Your task to perform on an android device: check out phone information Image 0: 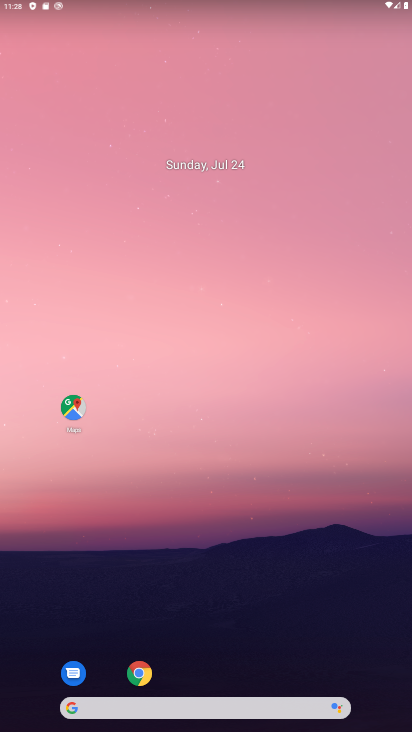
Step 0: drag from (219, 714) to (250, 191)
Your task to perform on an android device: check out phone information Image 1: 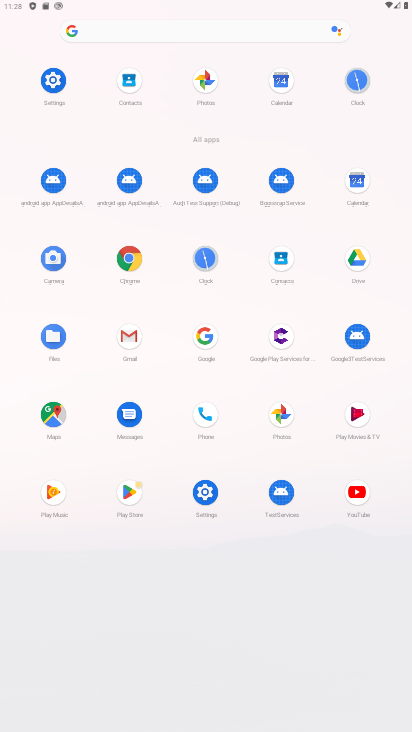
Step 1: click (206, 492)
Your task to perform on an android device: check out phone information Image 2: 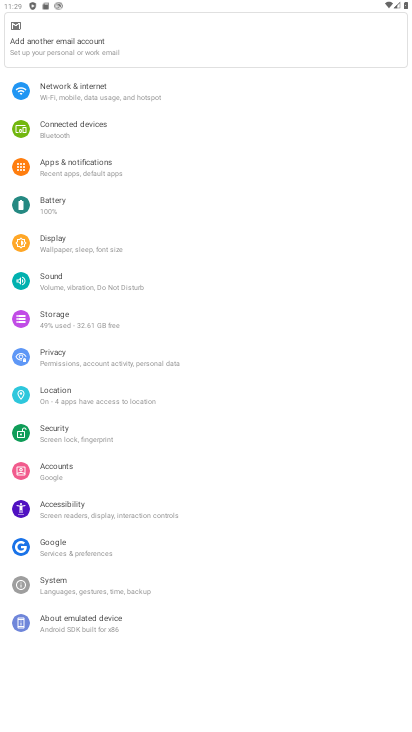
Step 2: click (66, 624)
Your task to perform on an android device: check out phone information Image 3: 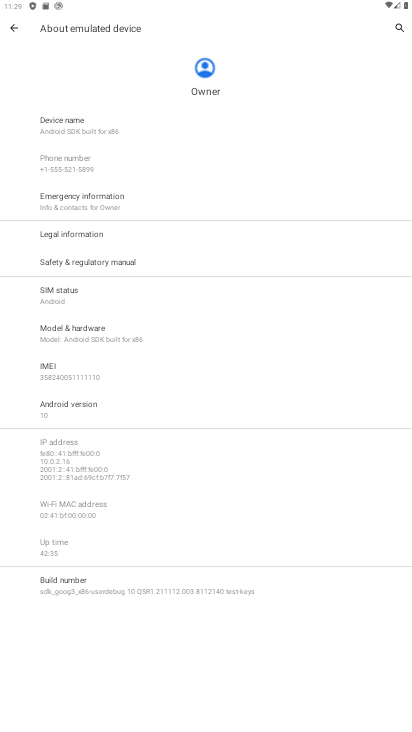
Step 3: task complete